Your task to perform on an android device: check out phone information Image 0: 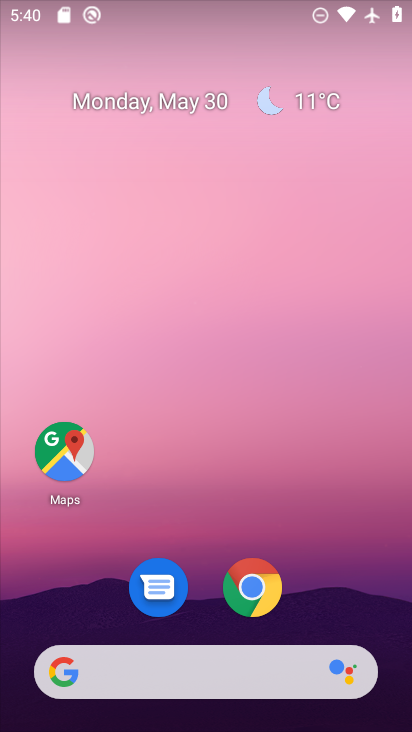
Step 0: drag from (373, 584) to (205, 31)
Your task to perform on an android device: check out phone information Image 1: 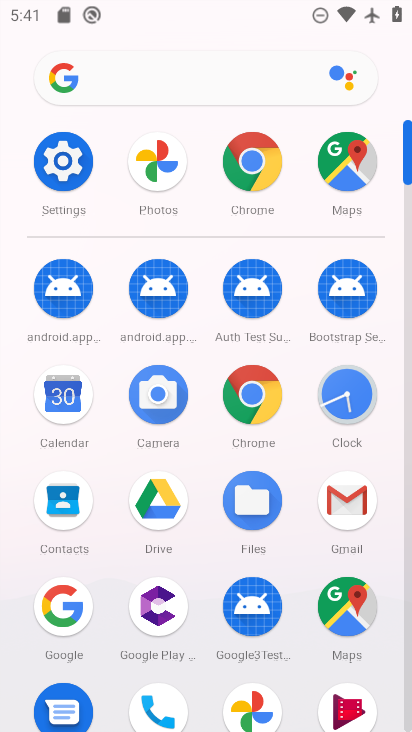
Step 1: drag from (26, 565) to (15, 196)
Your task to perform on an android device: check out phone information Image 2: 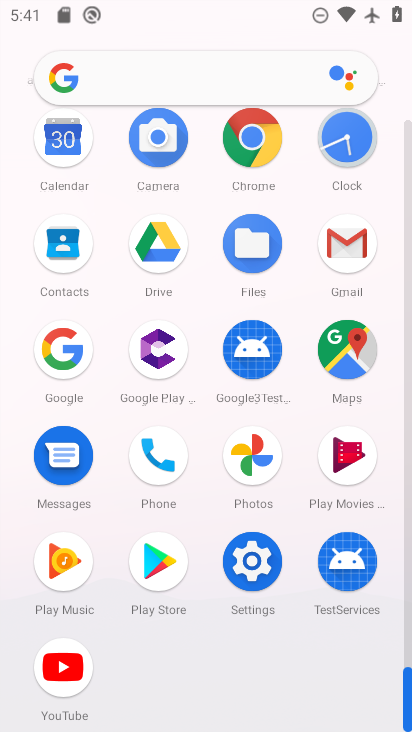
Step 2: click (249, 559)
Your task to perform on an android device: check out phone information Image 3: 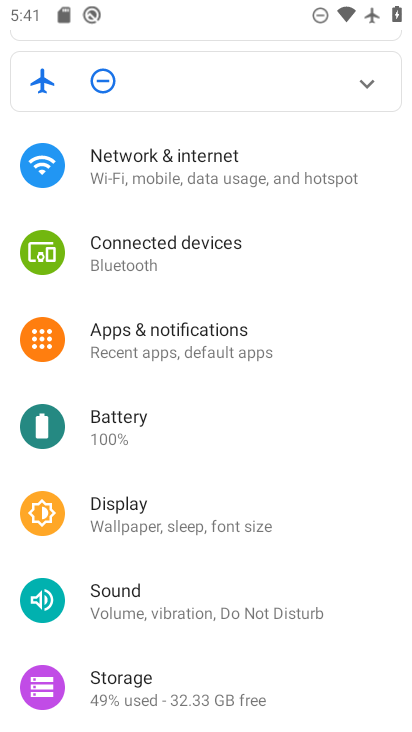
Step 3: drag from (289, 572) to (246, 114)
Your task to perform on an android device: check out phone information Image 4: 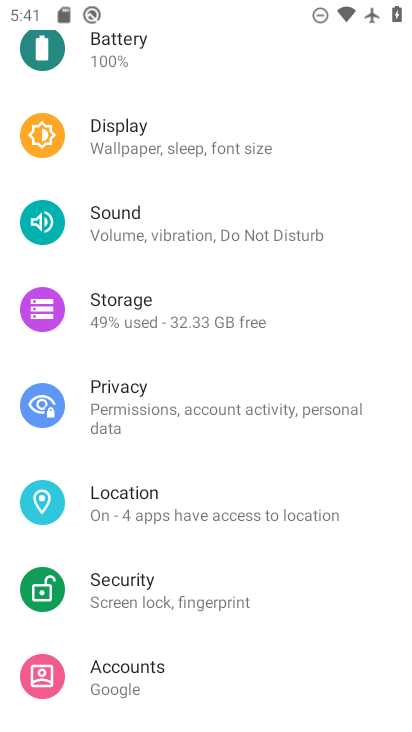
Step 4: drag from (236, 612) to (247, 108)
Your task to perform on an android device: check out phone information Image 5: 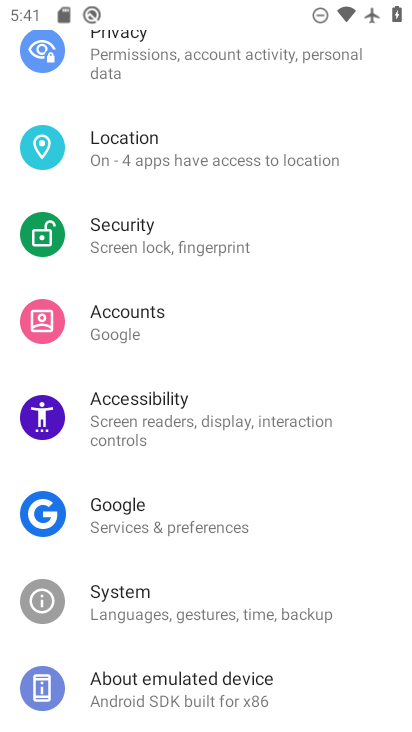
Step 5: drag from (279, 576) to (247, 96)
Your task to perform on an android device: check out phone information Image 6: 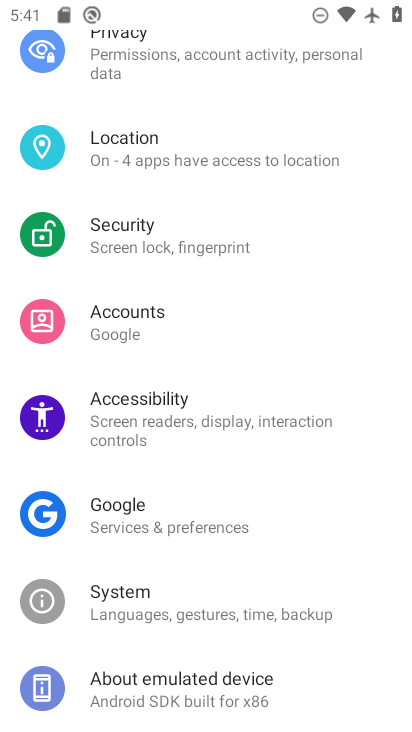
Step 6: click (208, 674)
Your task to perform on an android device: check out phone information Image 7: 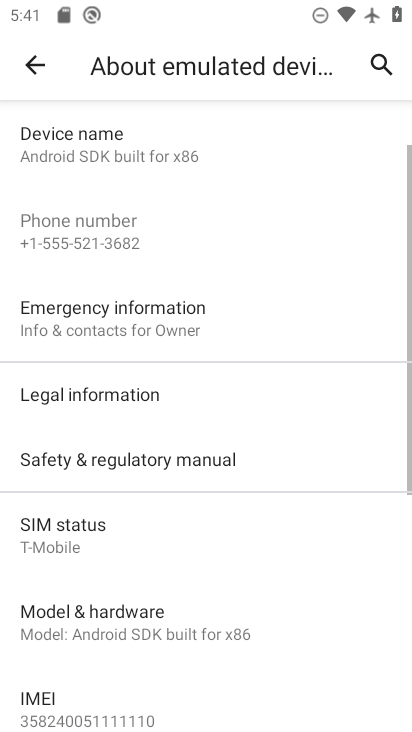
Step 7: task complete